Your task to perform on an android device: Check the news Image 0: 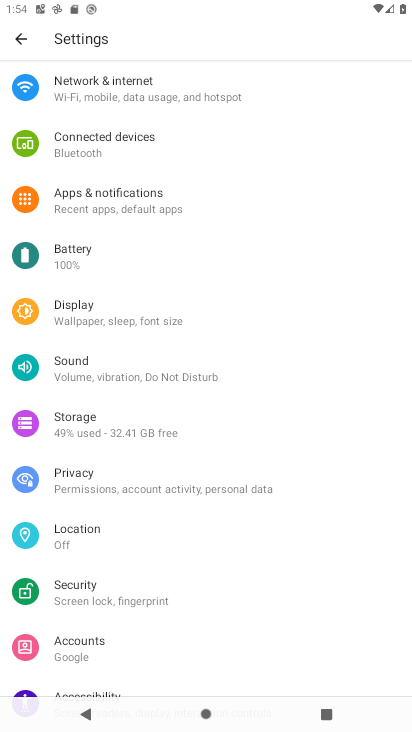
Step 0: press home button
Your task to perform on an android device: Check the news Image 1: 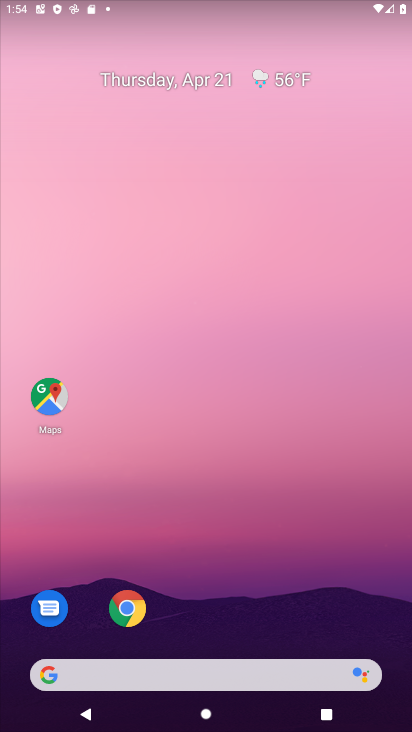
Step 1: drag from (260, 609) to (242, 46)
Your task to perform on an android device: Check the news Image 2: 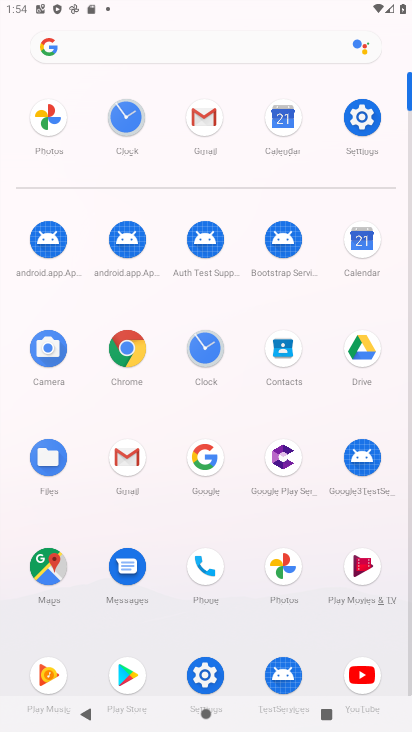
Step 2: click (200, 457)
Your task to perform on an android device: Check the news Image 3: 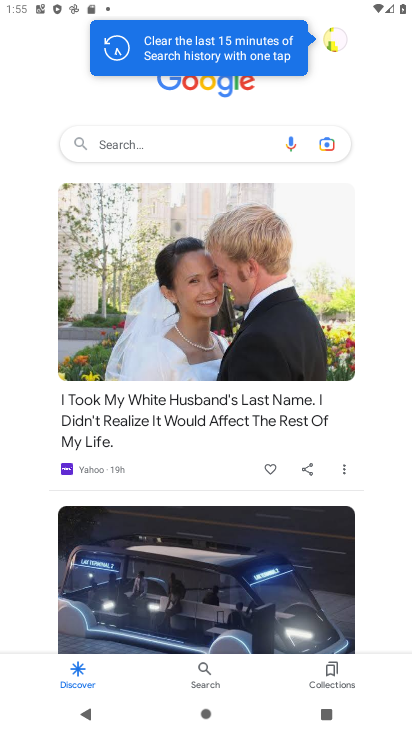
Step 3: click (191, 465)
Your task to perform on an android device: Check the news Image 4: 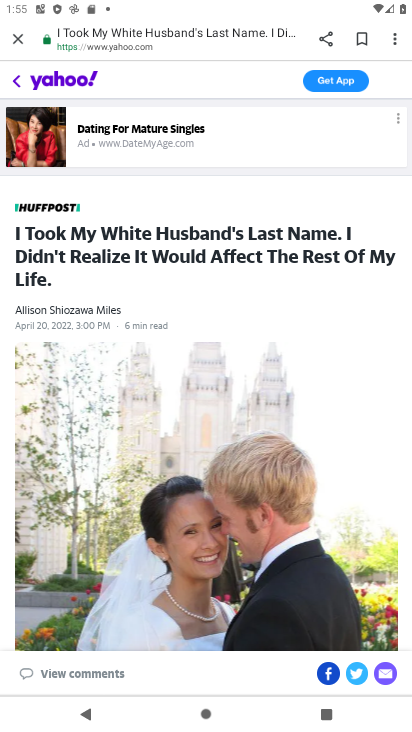
Step 4: click (22, 29)
Your task to perform on an android device: Check the news Image 5: 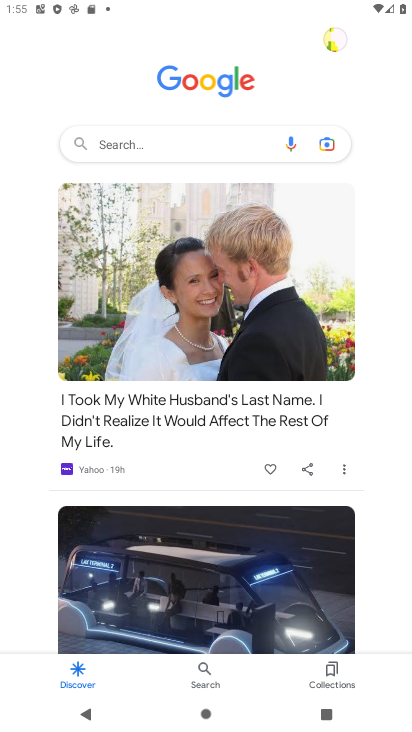
Step 5: click (155, 150)
Your task to perform on an android device: Check the news Image 6: 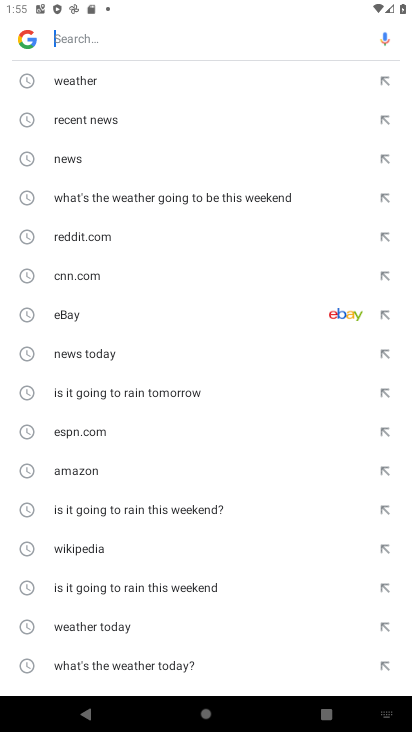
Step 6: click (92, 161)
Your task to perform on an android device: Check the news Image 7: 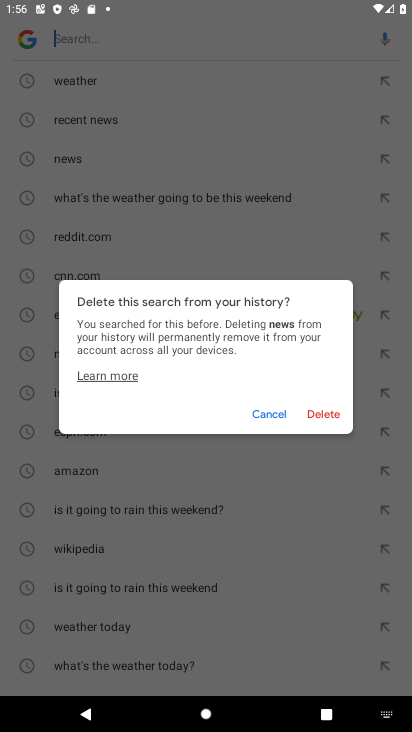
Step 7: click (273, 418)
Your task to perform on an android device: Check the news Image 8: 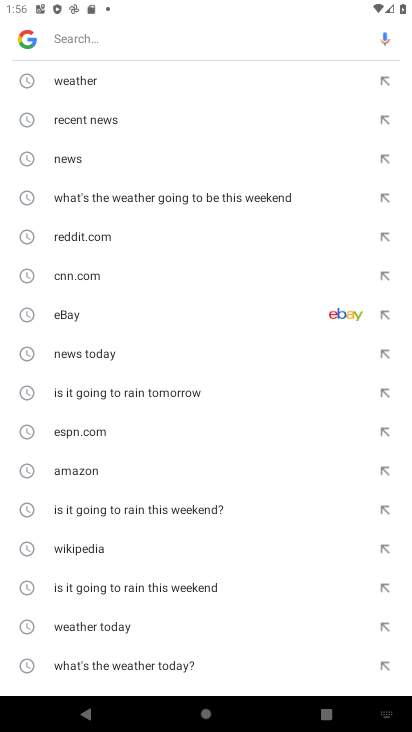
Step 8: click (96, 155)
Your task to perform on an android device: Check the news Image 9: 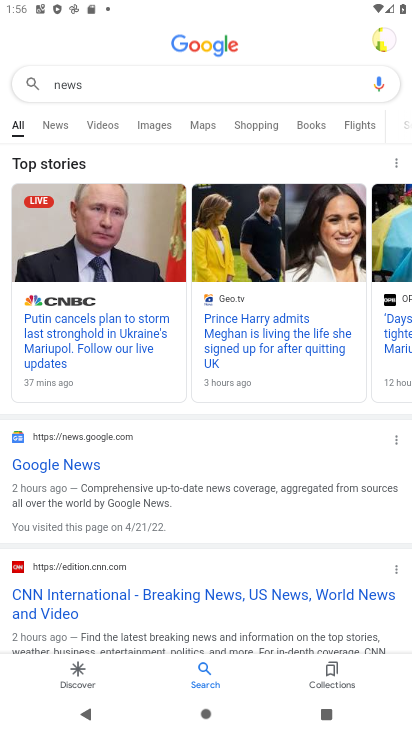
Step 9: click (58, 119)
Your task to perform on an android device: Check the news Image 10: 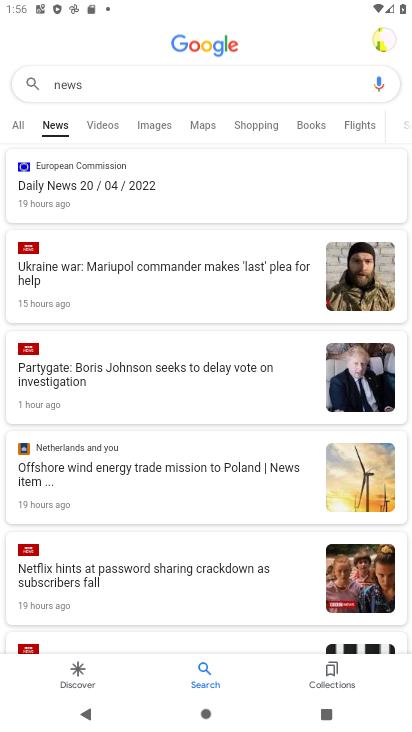
Step 10: task complete